Your task to perform on an android device: Add "jbl charge 4" to the cart on costco.com, then select checkout. Image 0: 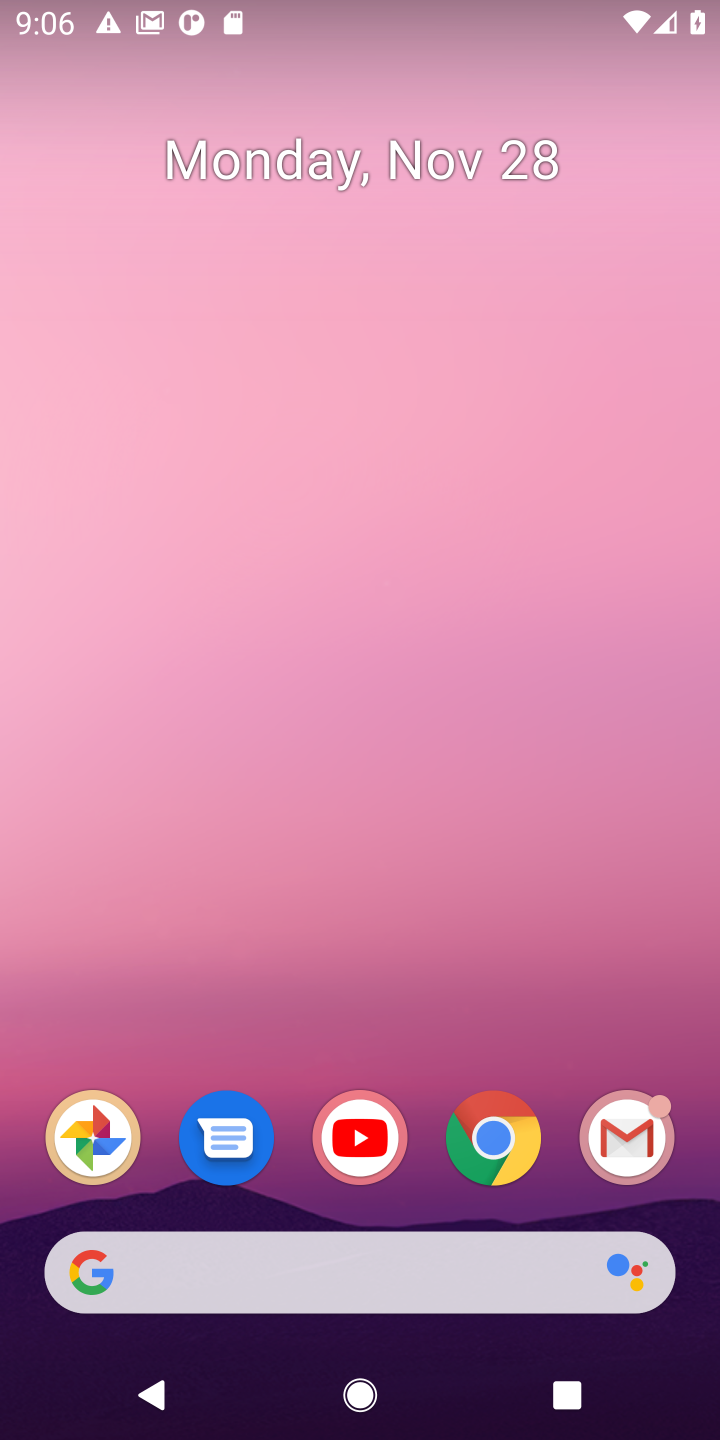
Step 0: click (491, 1149)
Your task to perform on an android device: Add "jbl charge 4" to the cart on costco.com, then select checkout. Image 1: 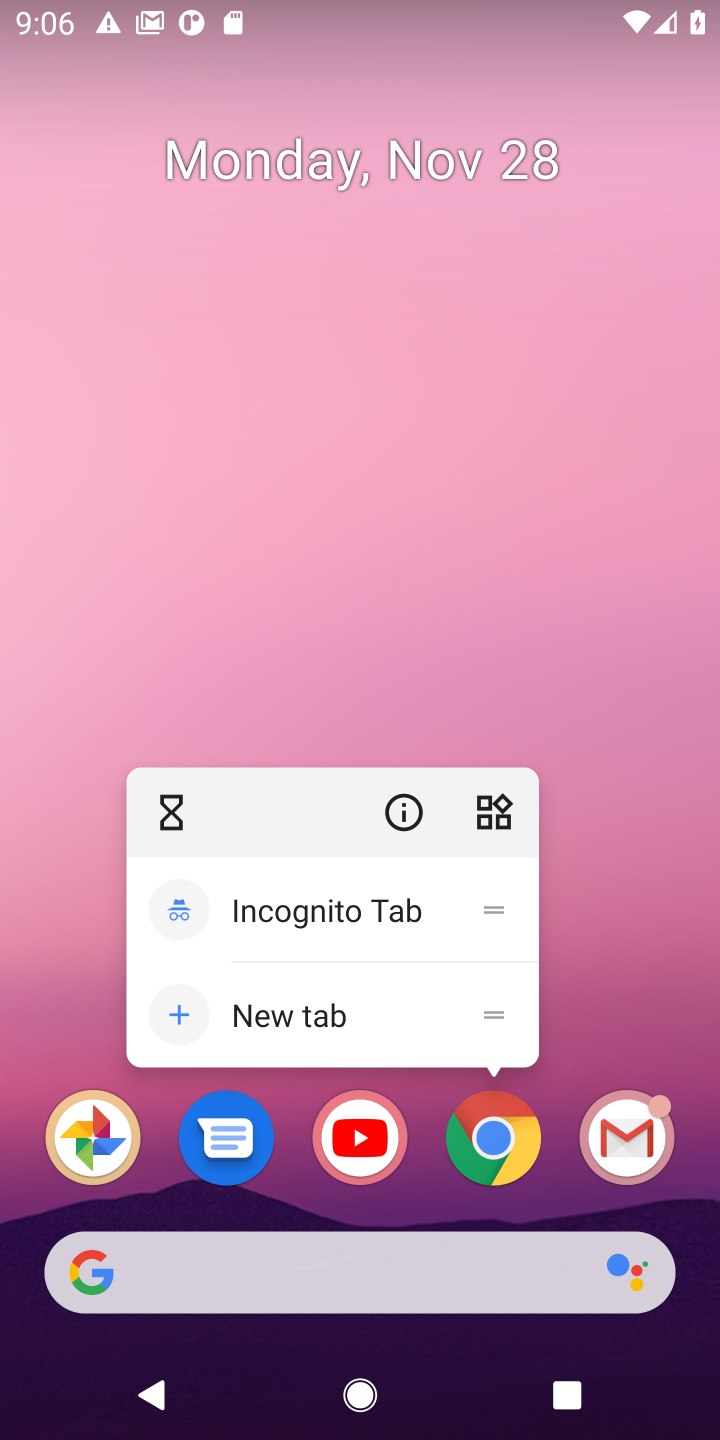
Step 1: click (492, 1137)
Your task to perform on an android device: Add "jbl charge 4" to the cart on costco.com, then select checkout. Image 2: 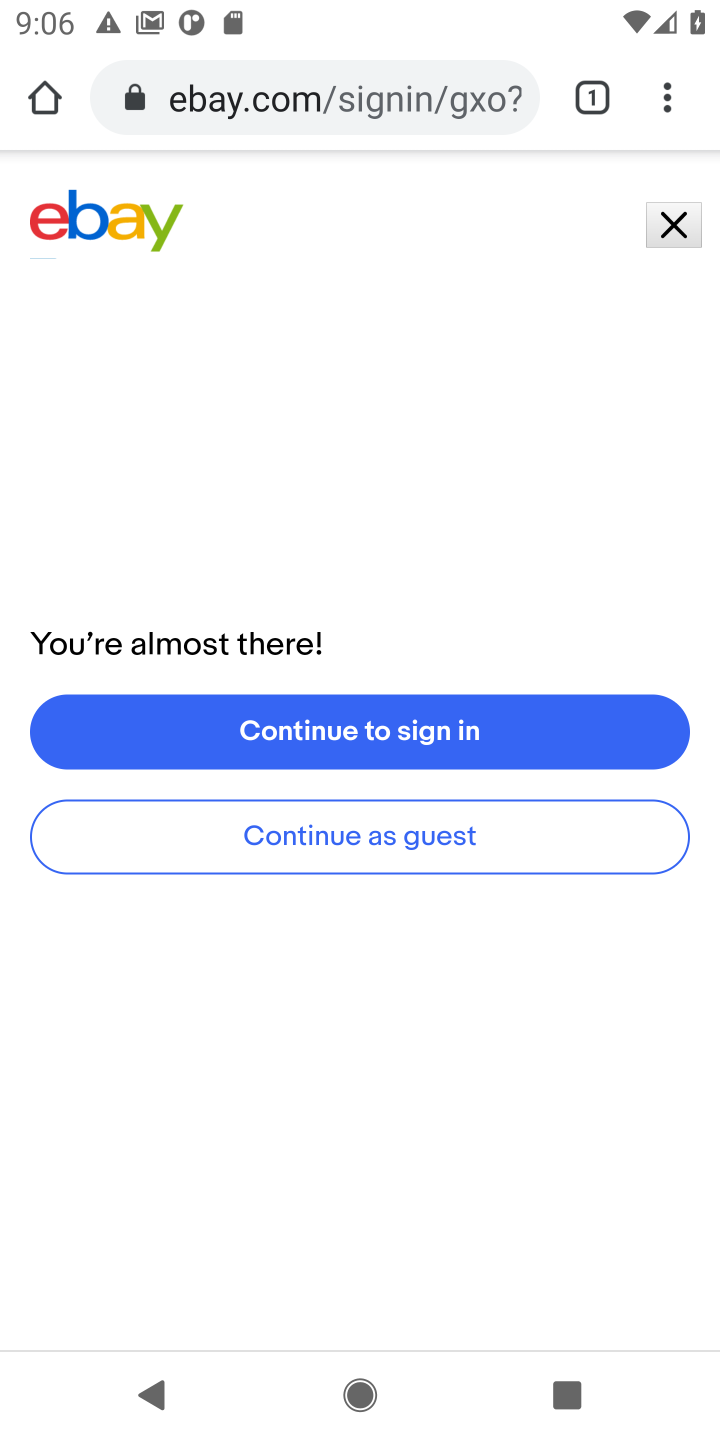
Step 2: click (304, 97)
Your task to perform on an android device: Add "jbl charge 4" to the cart on costco.com, then select checkout. Image 3: 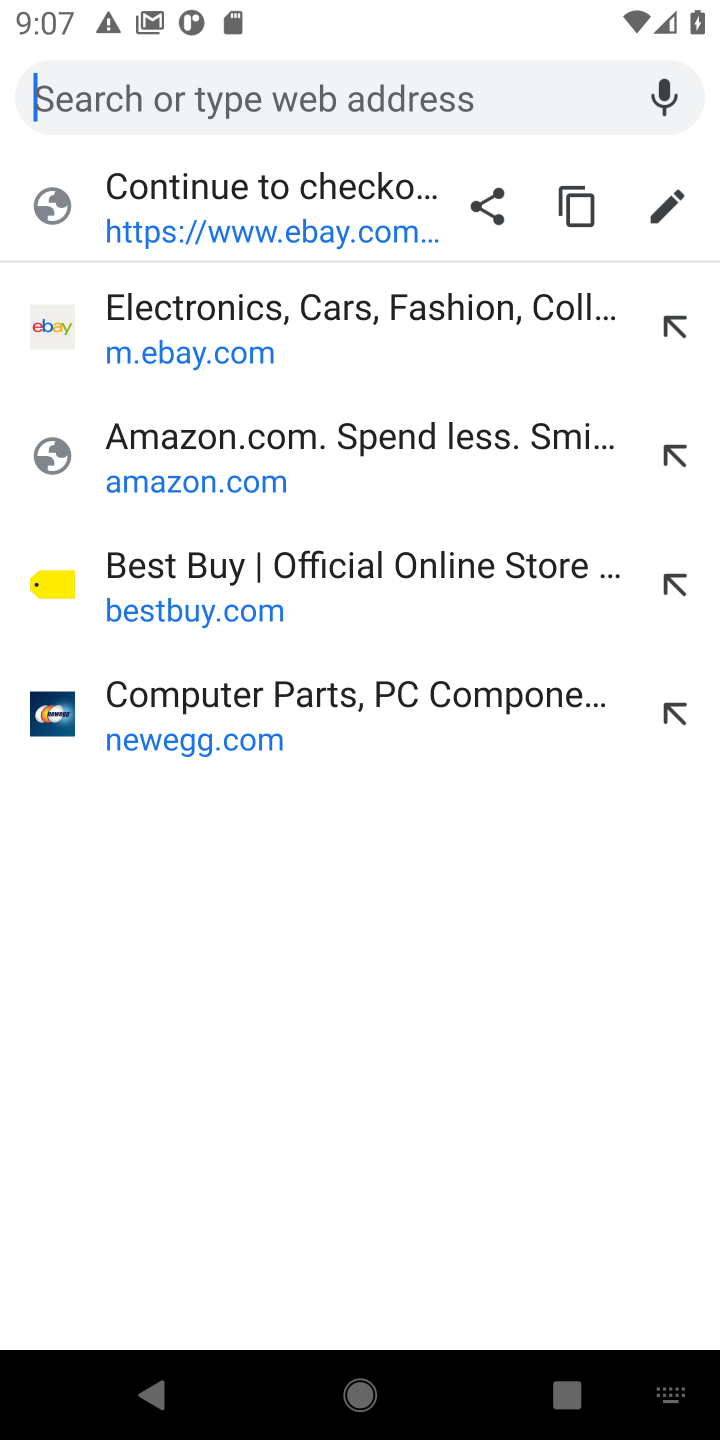
Step 3: type "costco.com"
Your task to perform on an android device: Add "jbl charge 4" to the cart on costco.com, then select checkout. Image 4: 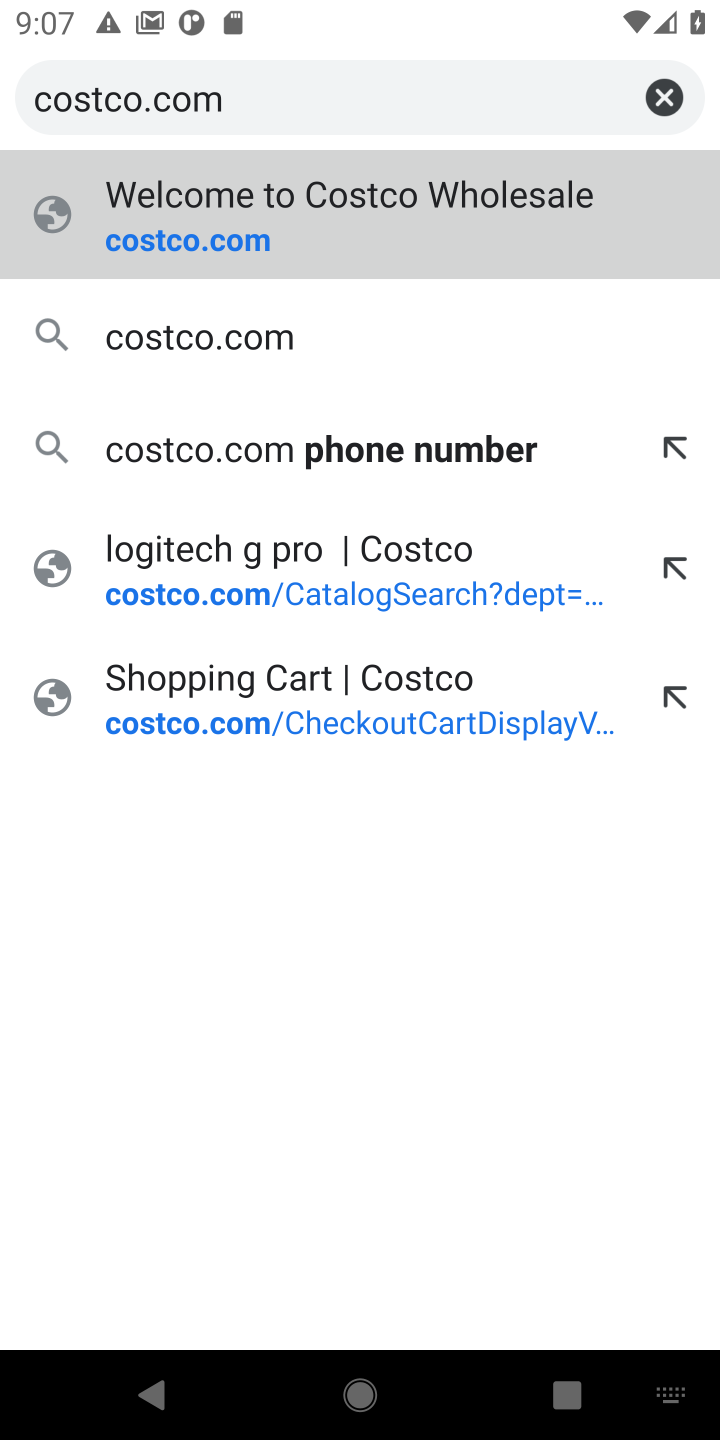
Step 4: click (178, 245)
Your task to perform on an android device: Add "jbl charge 4" to the cart on costco.com, then select checkout. Image 5: 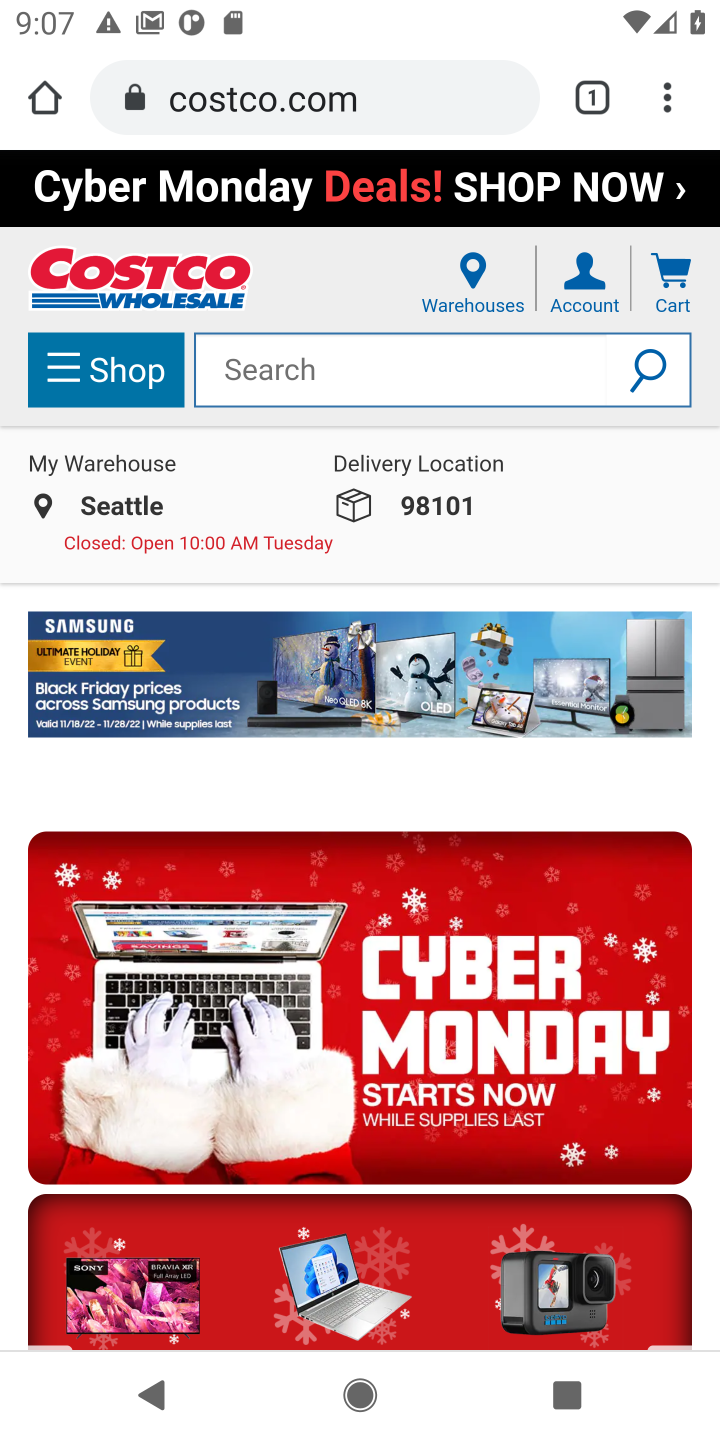
Step 5: click (357, 370)
Your task to perform on an android device: Add "jbl charge 4" to the cart on costco.com, then select checkout. Image 6: 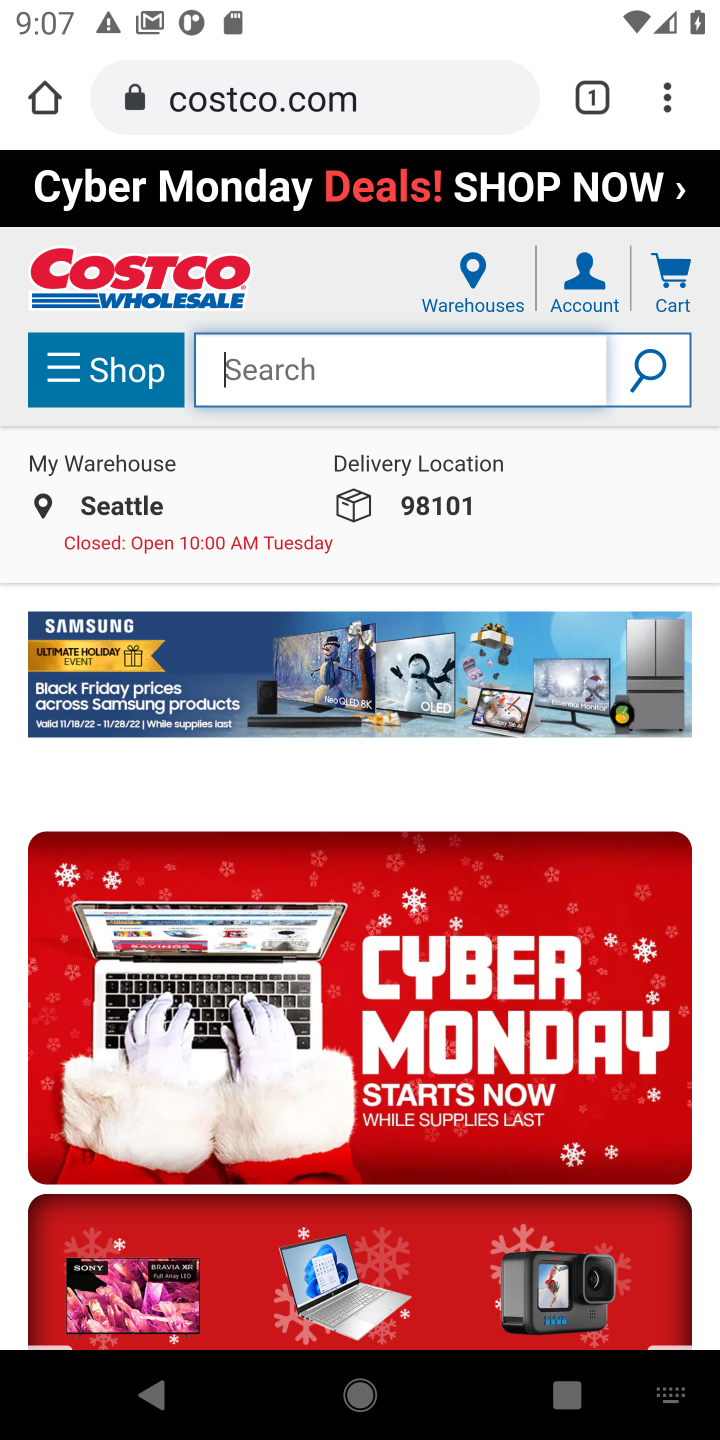
Step 6: type "jbl charge 4"
Your task to perform on an android device: Add "jbl charge 4" to the cart on costco.com, then select checkout. Image 7: 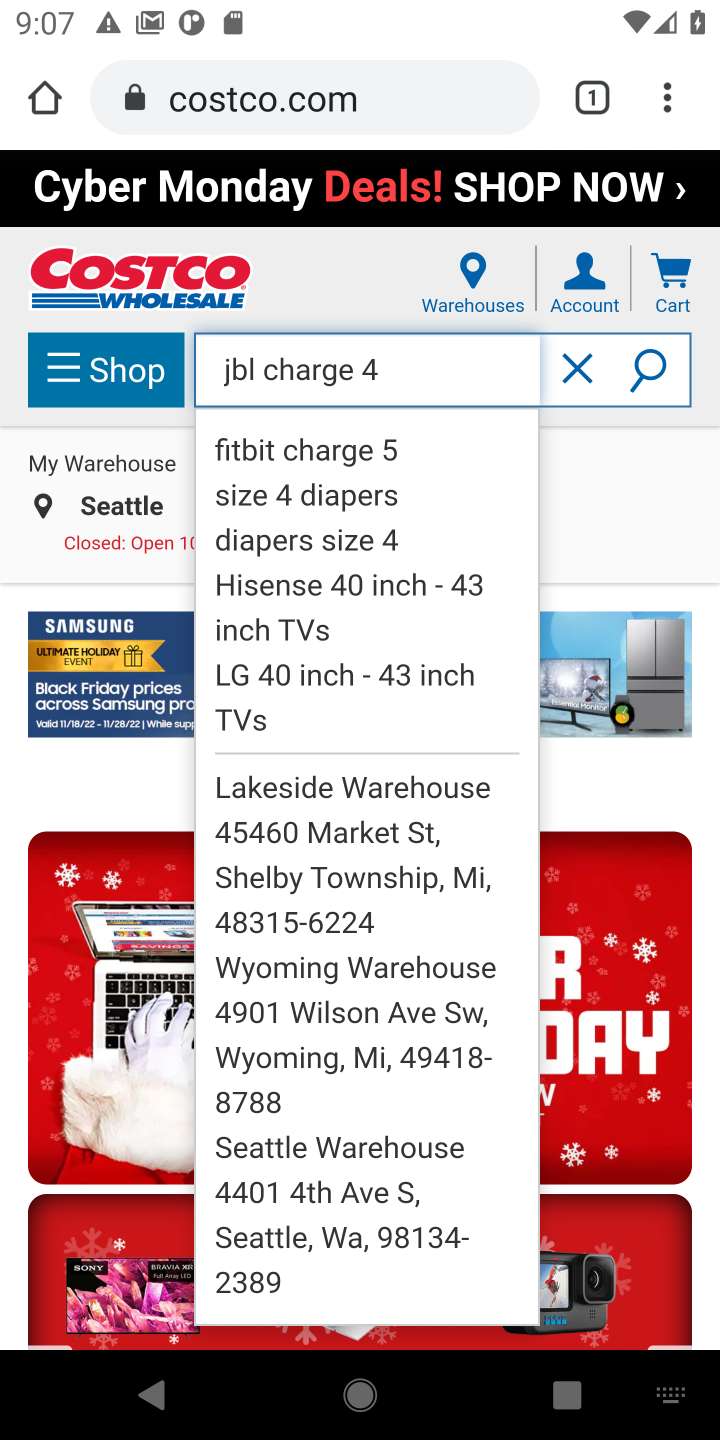
Step 7: click (643, 372)
Your task to perform on an android device: Add "jbl charge 4" to the cart on costco.com, then select checkout. Image 8: 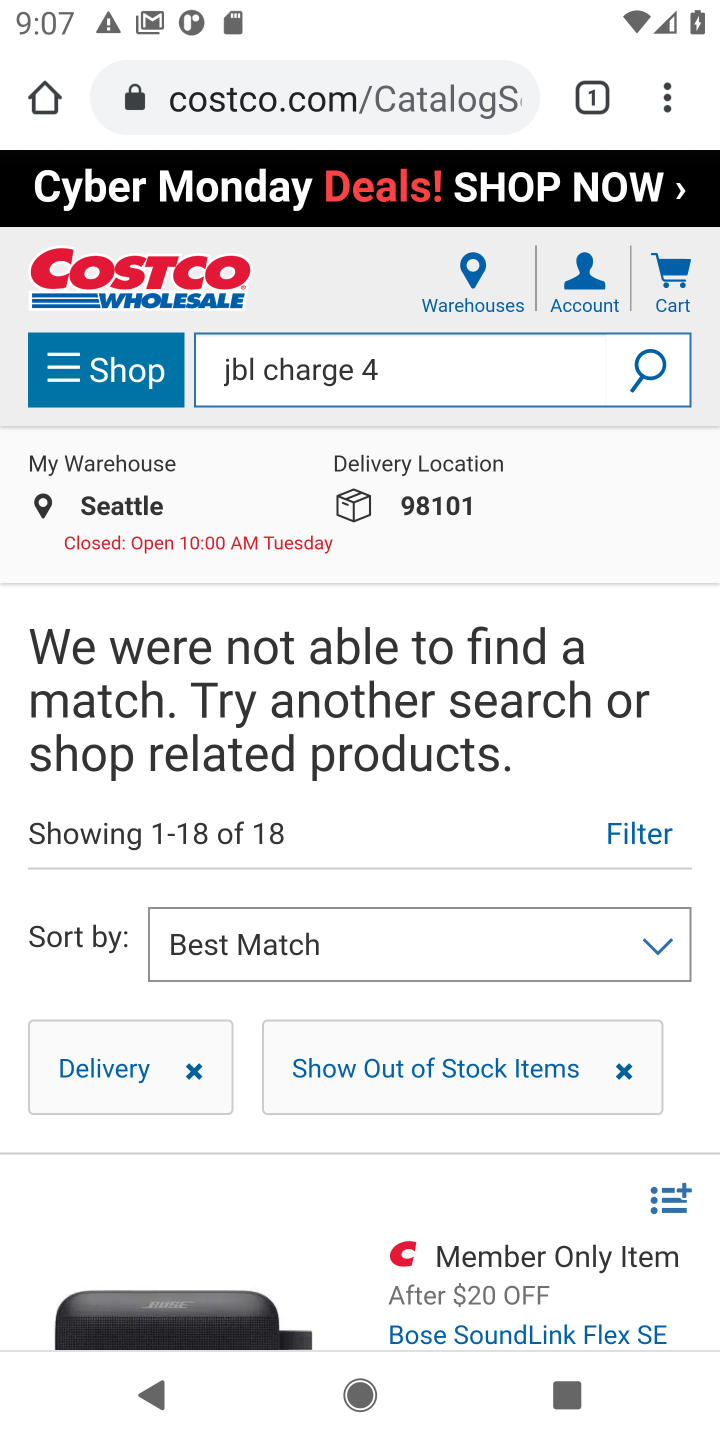
Step 8: task complete